Your task to perform on an android device: Go to CNN.com Image 0: 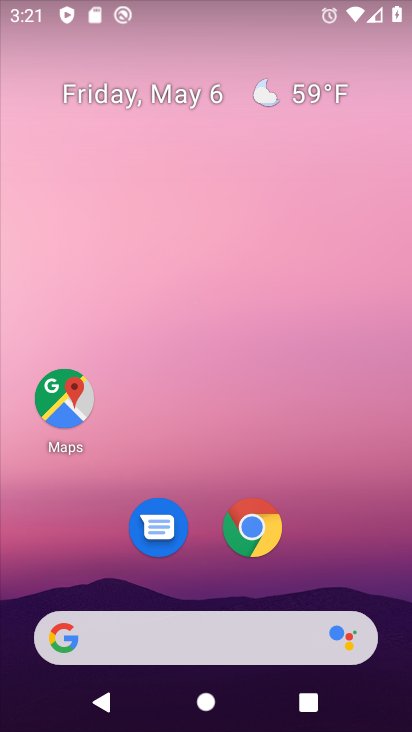
Step 0: click (252, 530)
Your task to perform on an android device: Go to CNN.com Image 1: 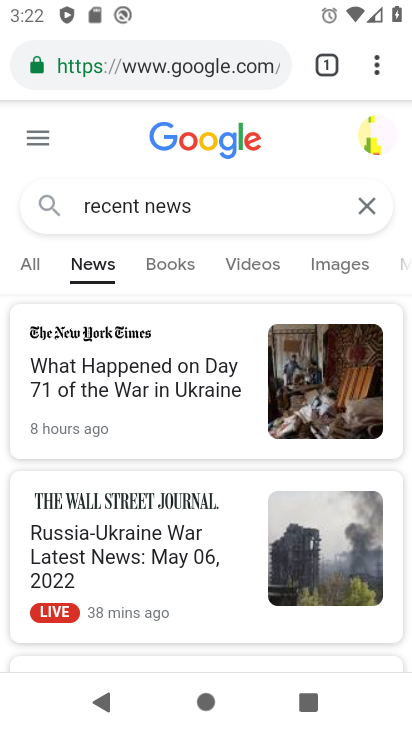
Step 1: click (197, 61)
Your task to perform on an android device: Go to CNN.com Image 2: 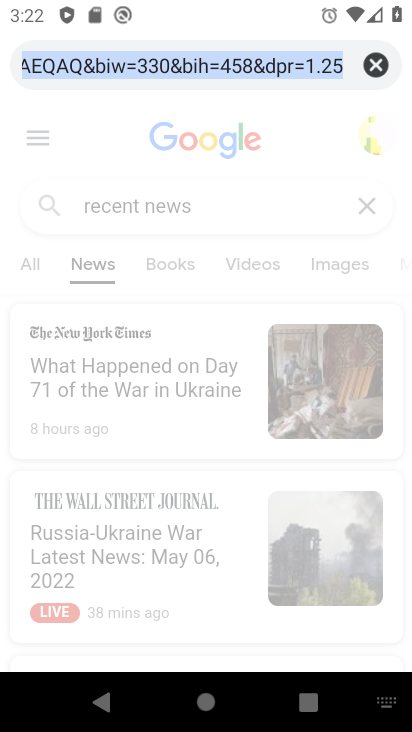
Step 2: type "cnn.com"
Your task to perform on an android device: Go to CNN.com Image 3: 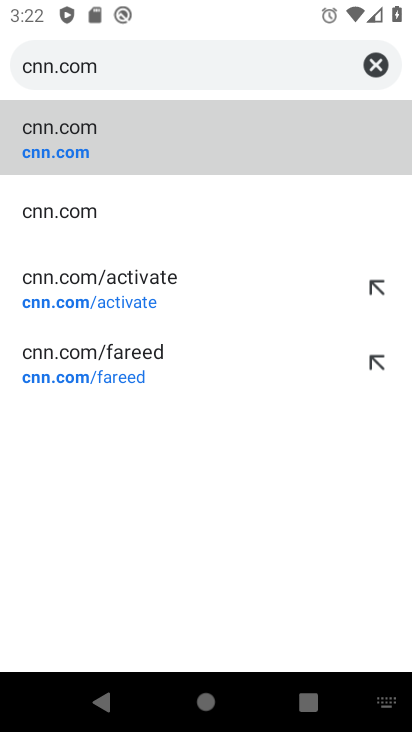
Step 3: click (61, 143)
Your task to perform on an android device: Go to CNN.com Image 4: 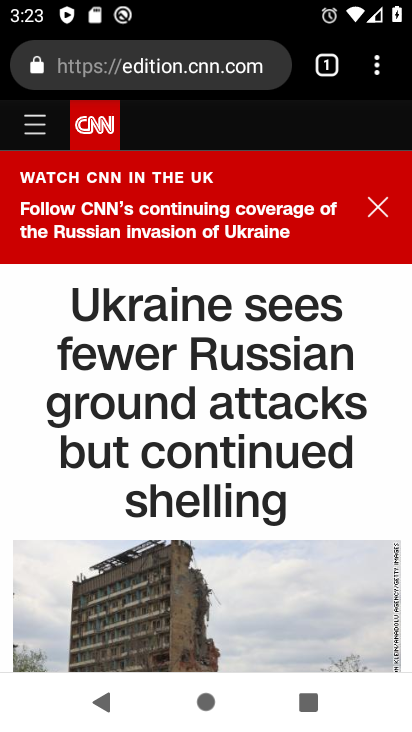
Step 4: task complete